Your task to perform on an android device: Go to ESPN.com Image 0: 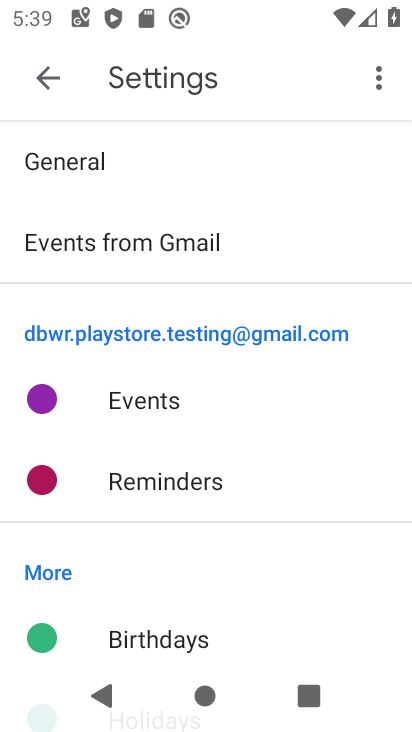
Step 0: press home button
Your task to perform on an android device: Go to ESPN.com Image 1: 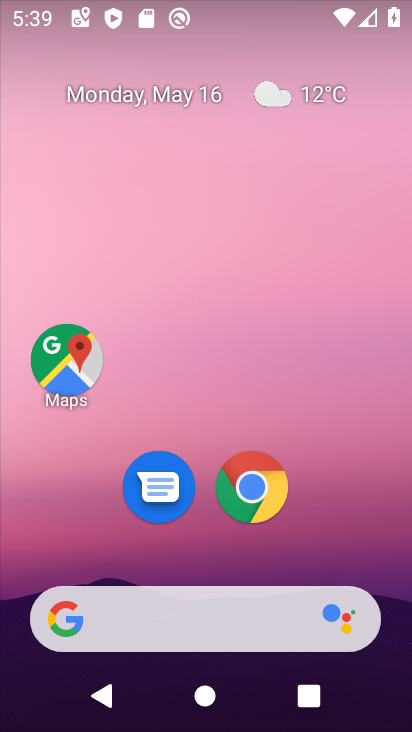
Step 1: click (263, 487)
Your task to perform on an android device: Go to ESPN.com Image 2: 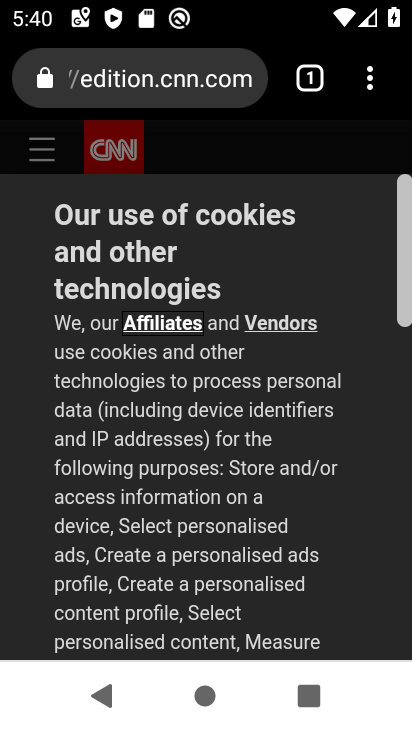
Step 2: click (226, 68)
Your task to perform on an android device: Go to ESPN.com Image 3: 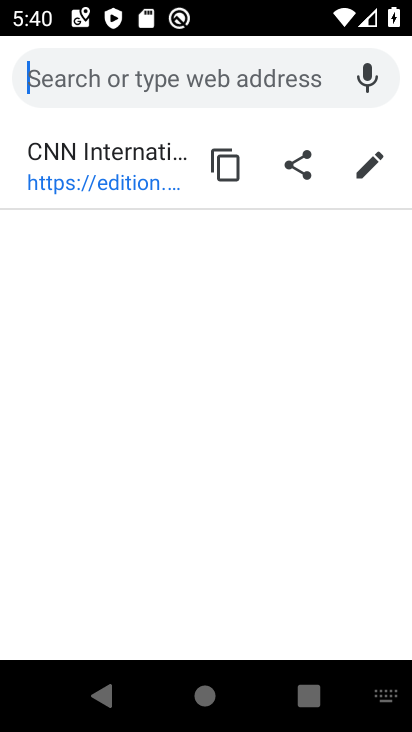
Step 3: type "espn.com"
Your task to perform on an android device: Go to ESPN.com Image 4: 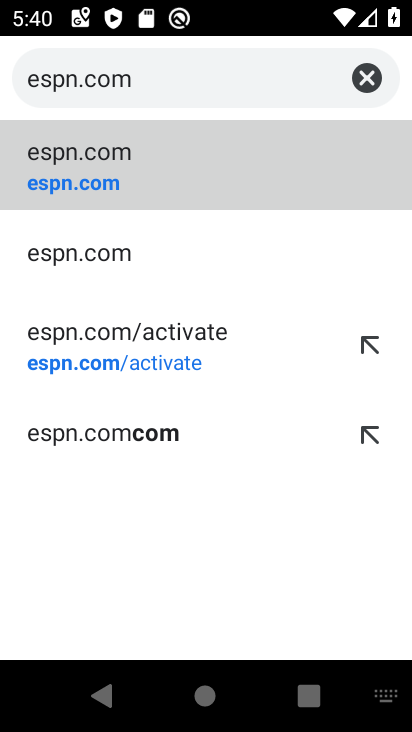
Step 4: click (156, 190)
Your task to perform on an android device: Go to ESPN.com Image 5: 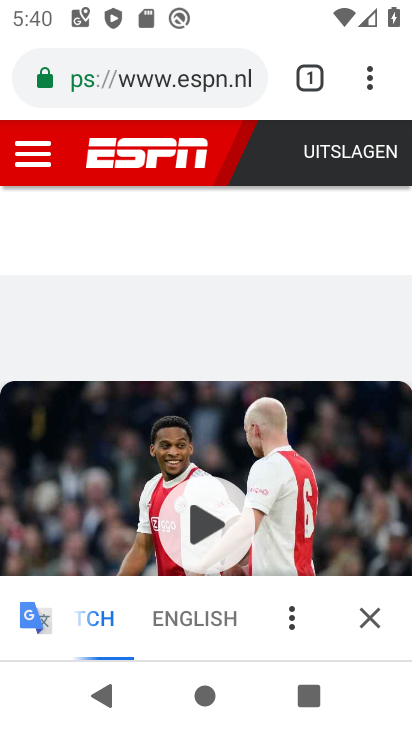
Step 5: task complete